Your task to perform on an android device: empty trash in the gmail app Image 0: 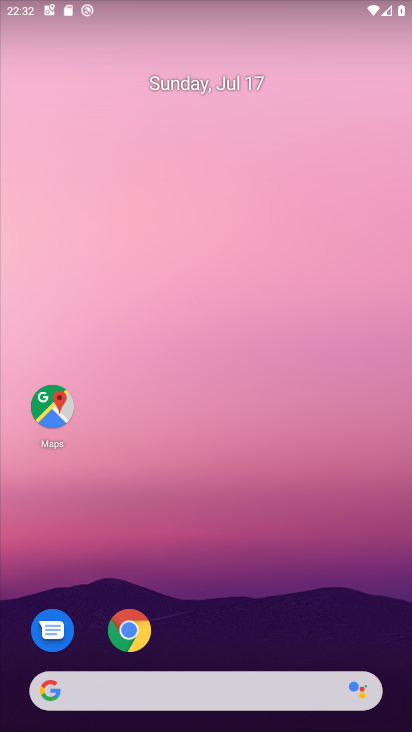
Step 0: drag from (217, 625) to (170, 28)
Your task to perform on an android device: empty trash in the gmail app Image 1: 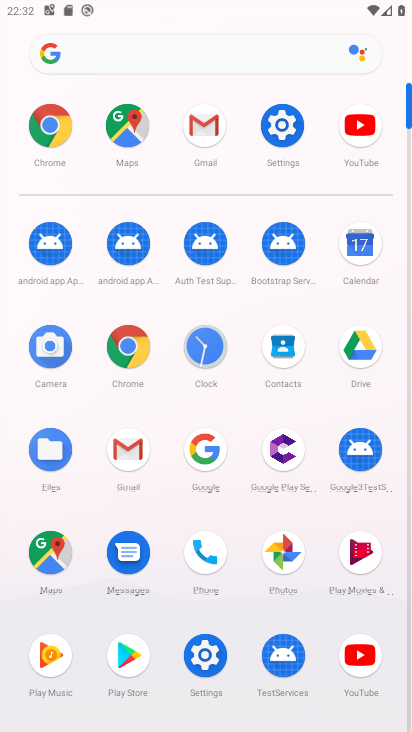
Step 1: click (135, 459)
Your task to perform on an android device: empty trash in the gmail app Image 2: 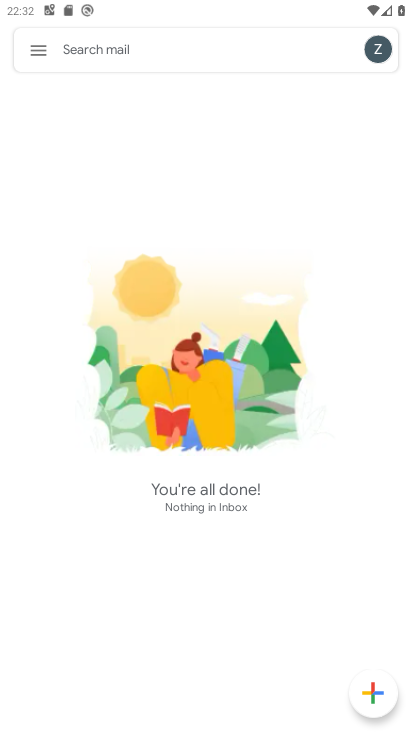
Step 2: click (46, 63)
Your task to perform on an android device: empty trash in the gmail app Image 3: 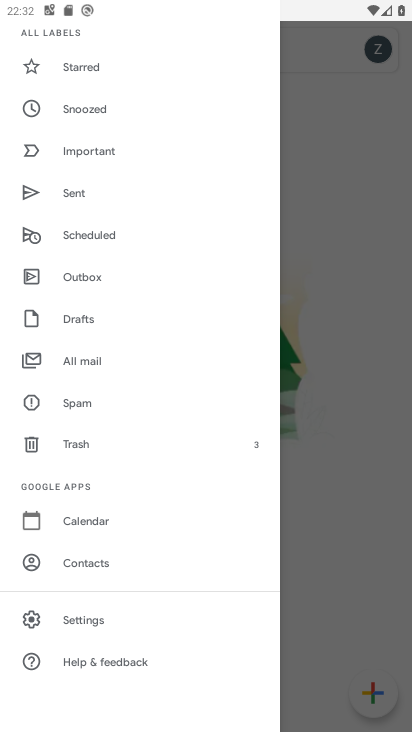
Step 3: click (93, 448)
Your task to perform on an android device: empty trash in the gmail app Image 4: 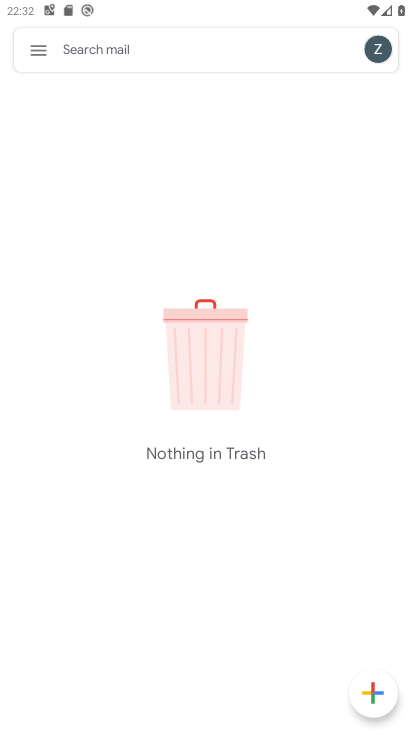
Step 4: task complete